Your task to perform on an android device: Open the calendar and show me this week's events Image 0: 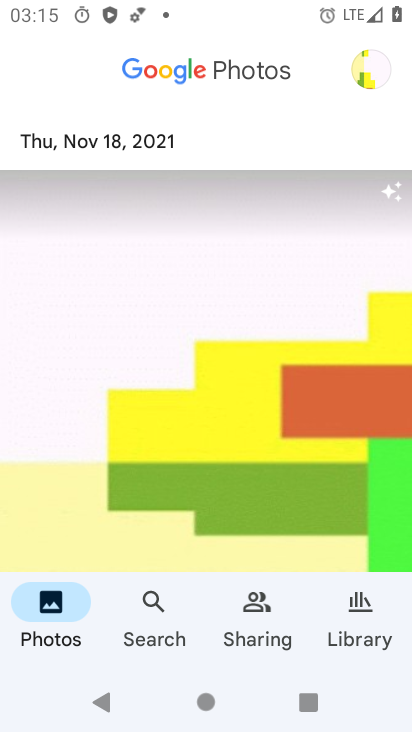
Step 0: drag from (191, 506) to (268, 249)
Your task to perform on an android device: Open the calendar and show me this week's events Image 1: 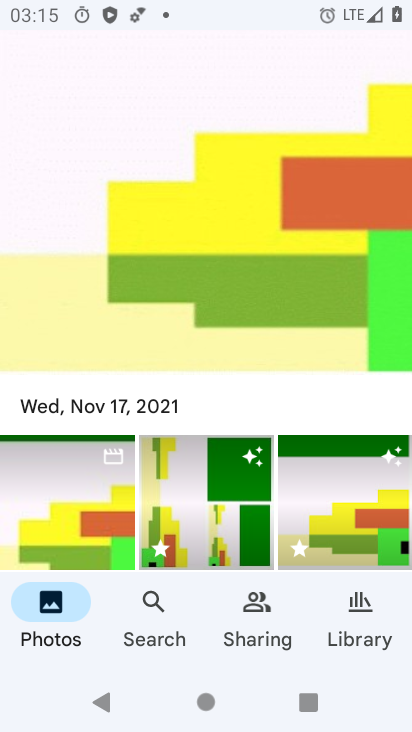
Step 1: press home button
Your task to perform on an android device: Open the calendar and show me this week's events Image 2: 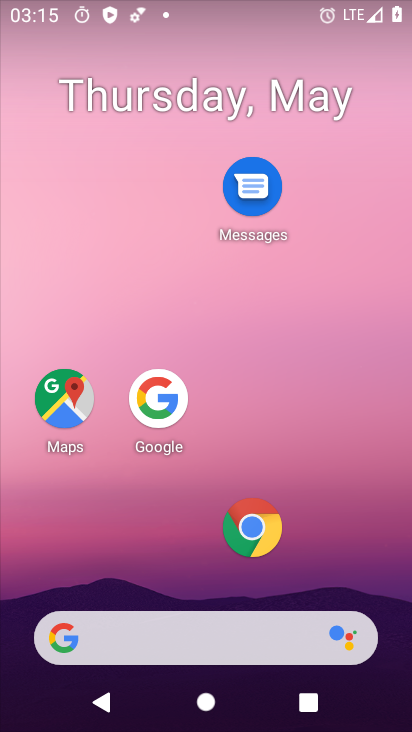
Step 2: drag from (213, 589) to (248, 227)
Your task to perform on an android device: Open the calendar and show me this week's events Image 3: 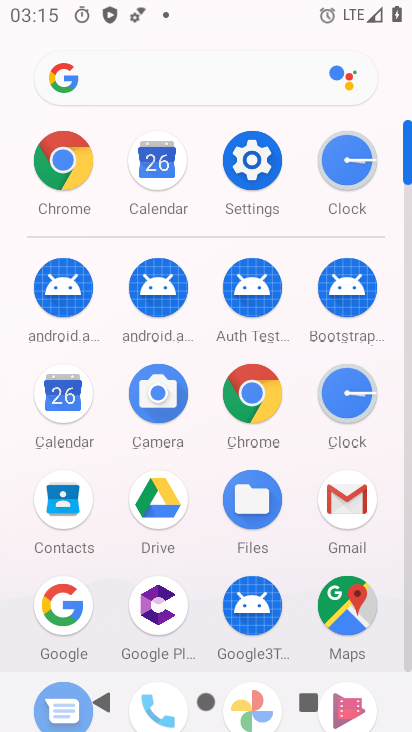
Step 3: click (75, 378)
Your task to perform on an android device: Open the calendar and show me this week's events Image 4: 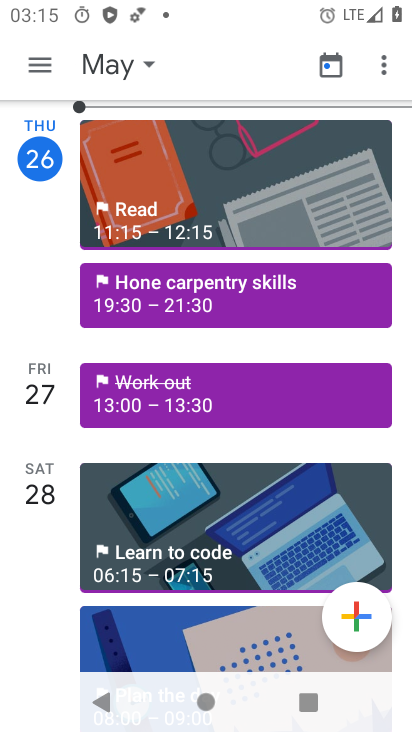
Step 4: click (103, 84)
Your task to perform on an android device: Open the calendar and show me this week's events Image 5: 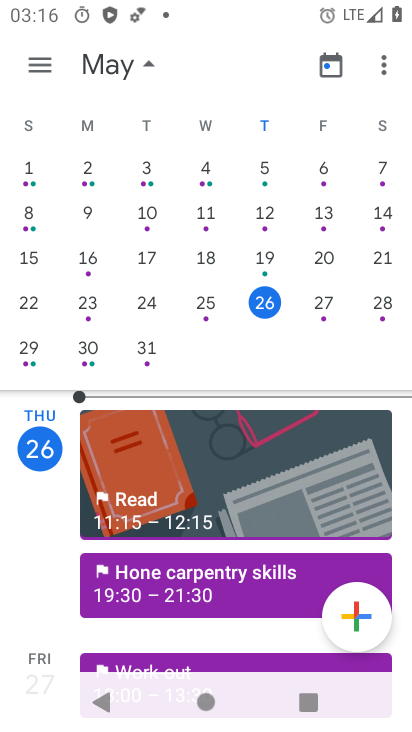
Step 5: click (377, 311)
Your task to perform on an android device: Open the calendar and show me this week's events Image 6: 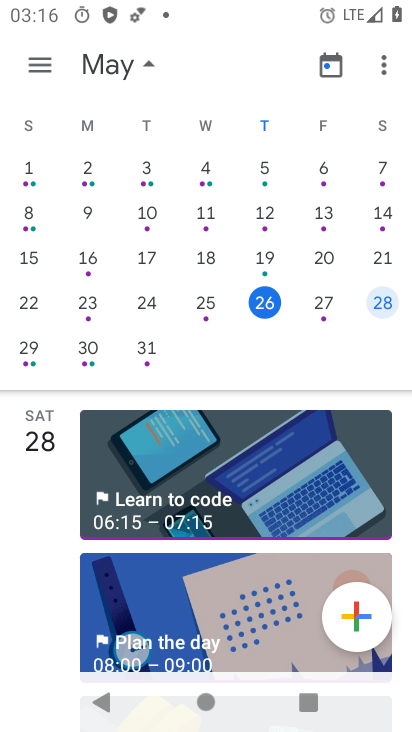
Step 6: task complete